Your task to perform on an android device: turn on sleep mode Image 0: 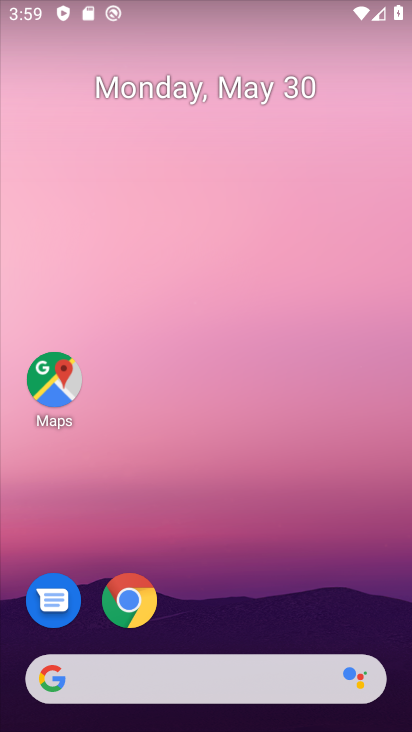
Step 0: drag from (251, 632) to (191, 157)
Your task to perform on an android device: turn on sleep mode Image 1: 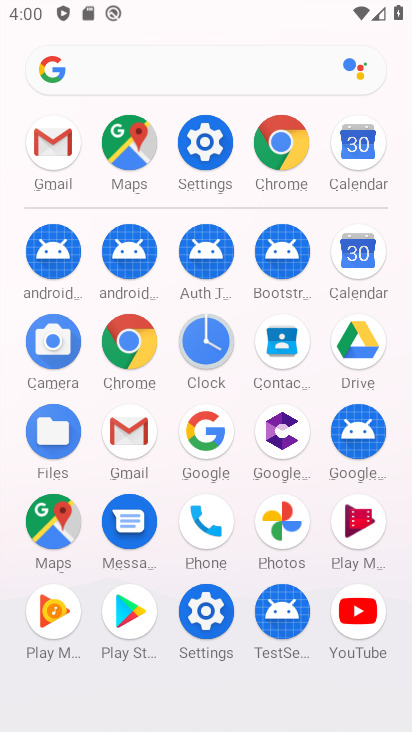
Step 1: drag from (296, 93) to (216, 143)
Your task to perform on an android device: turn on sleep mode Image 2: 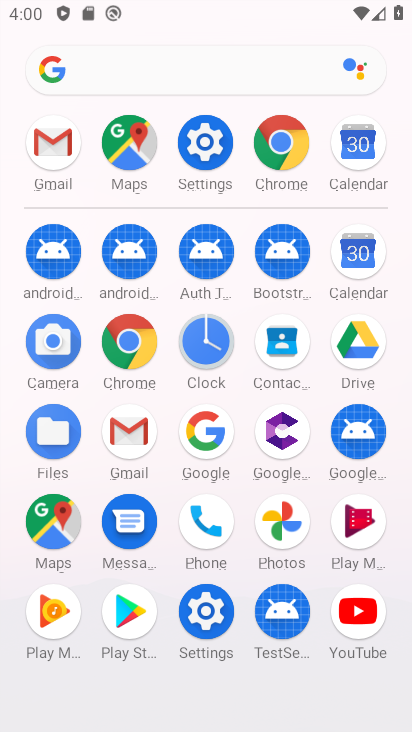
Step 2: click (208, 148)
Your task to perform on an android device: turn on sleep mode Image 3: 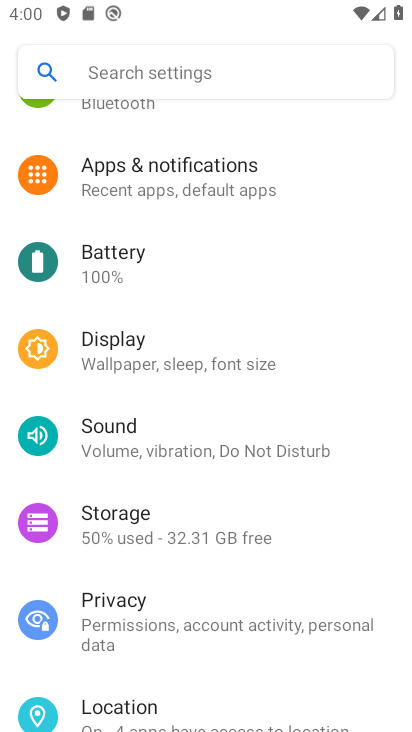
Step 3: click (212, 366)
Your task to perform on an android device: turn on sleep mode Image 4: 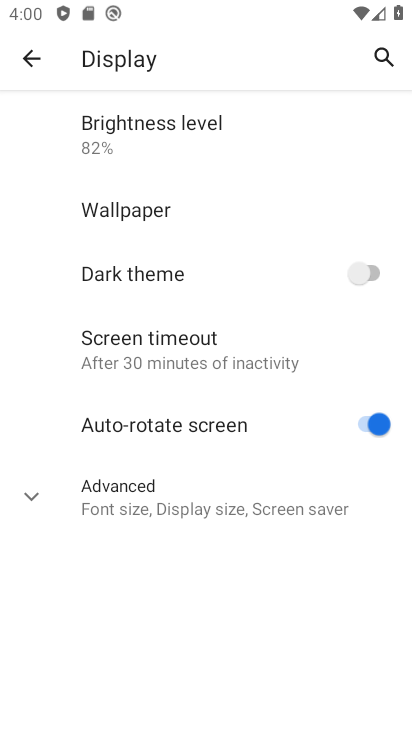
Step 4: click (234, 484)
Your task to perform on an android device: turn on sleep mode Image 5: 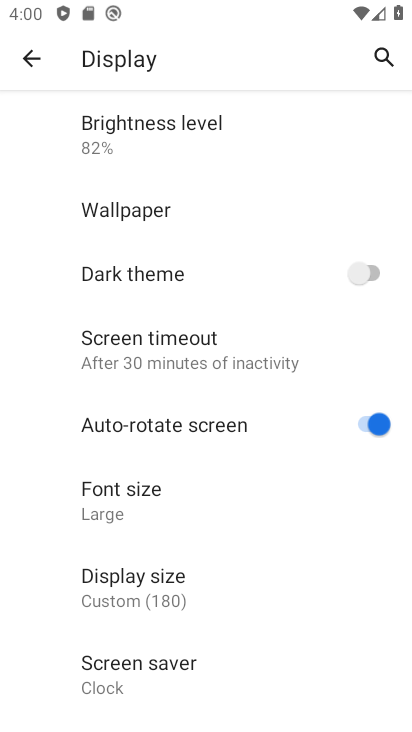
Step 5: task complete